Your task to perform on an android device: Open display settings Image 0: 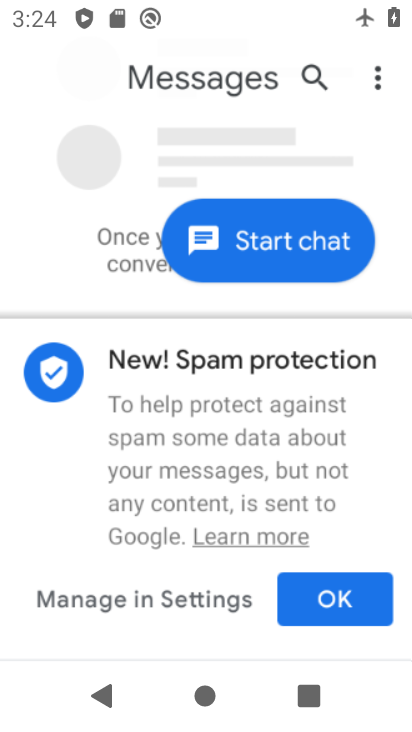
Step 0: drag from (295, 515) to (283, 143)
Your task to perform on an android device: Open display settings Image 1: 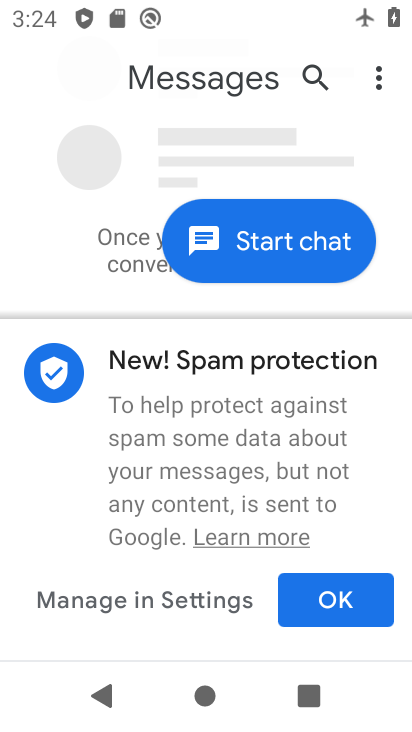
Step 1: press home button
Your task to perform on an android device: Open display settings Image 2: 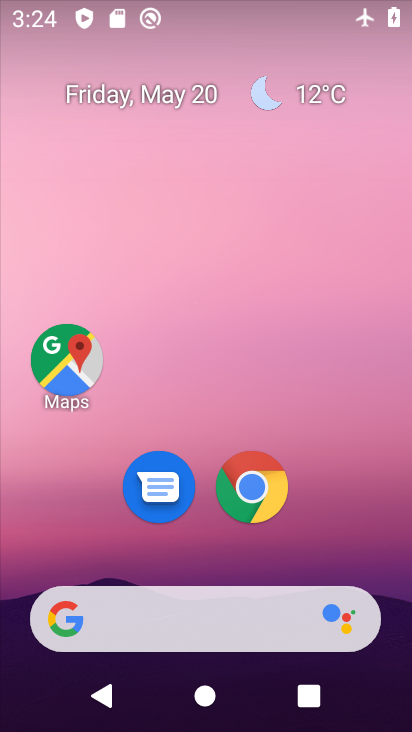
Step 2: drag from (297, 536) to (314, 186)
Your task to perform on an android device: Open display settings Image 3: 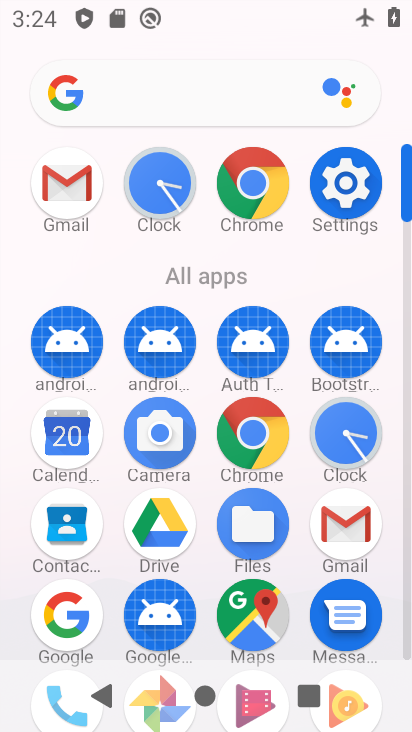
Step 3: click (349, 187)
Your task to perform on an android device: Open display settings Image 4: 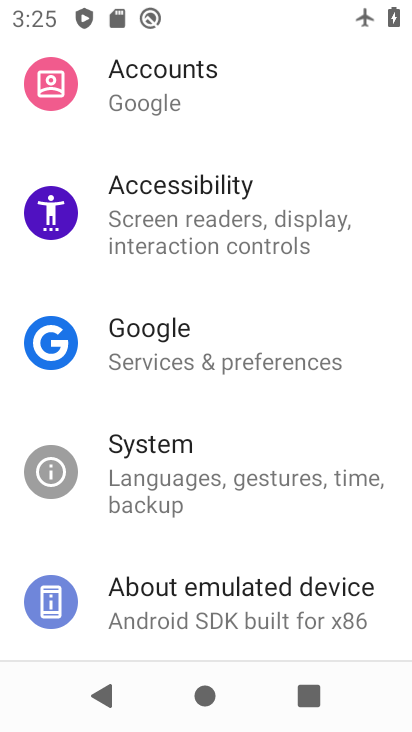
Step 4: drag from (250, 210) to (231, 456)
Your task to perform on an android device: Open display settings Image 5: 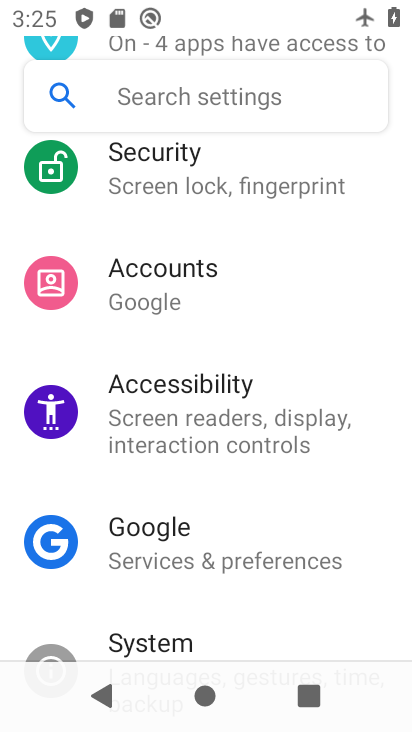
Step 5: drag from (267, 311) to (252, 534)
Your task to perform on an android device: Open display settings Image 6: 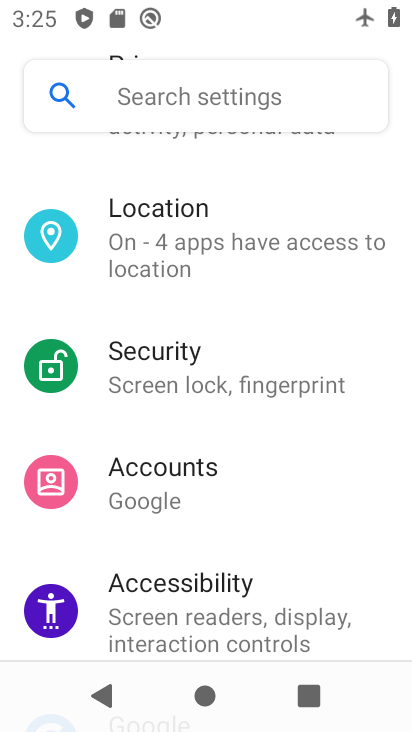
Step 6: drag from (270, 313) to (261, 498)
Your task to perform on an android device: Open display settings Image 7: 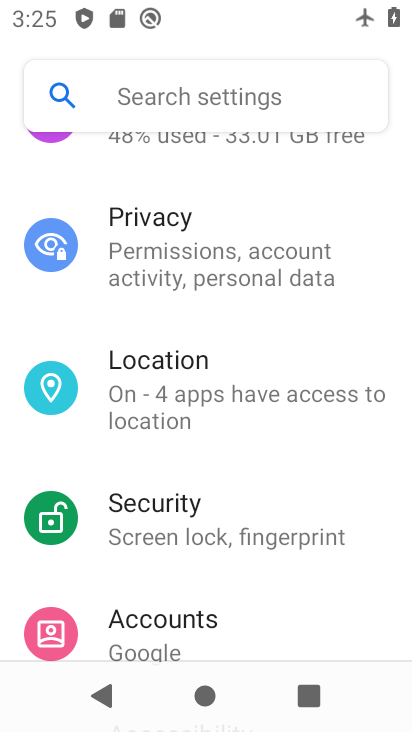
Step 7: drag from (247, 345) to (230, 522)
Your task to perform on an android device: Open display settings Image 8: 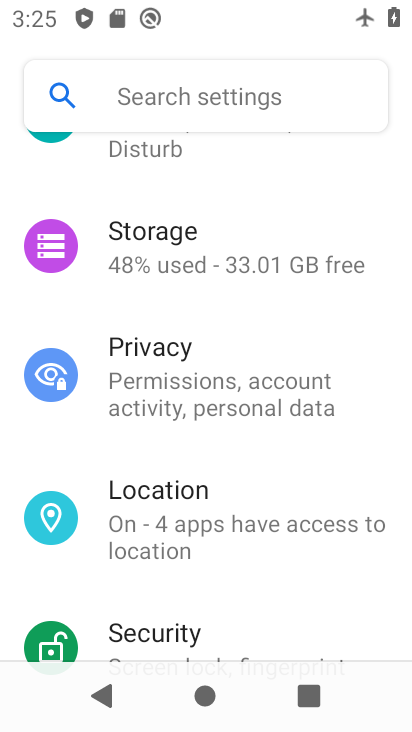
Step 8: drag from (230, 304) to (212, 508)
Your task to perform on an android device: Open display settings Image 9: 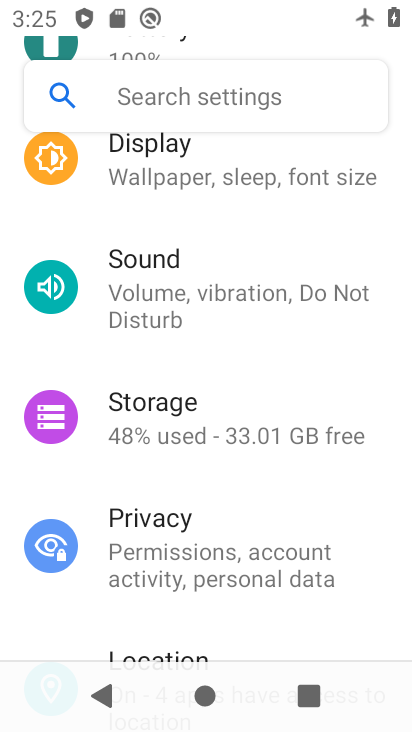
Step 9: click (183, 157)
Your task to perform on an android device: Open display settings Image 10: 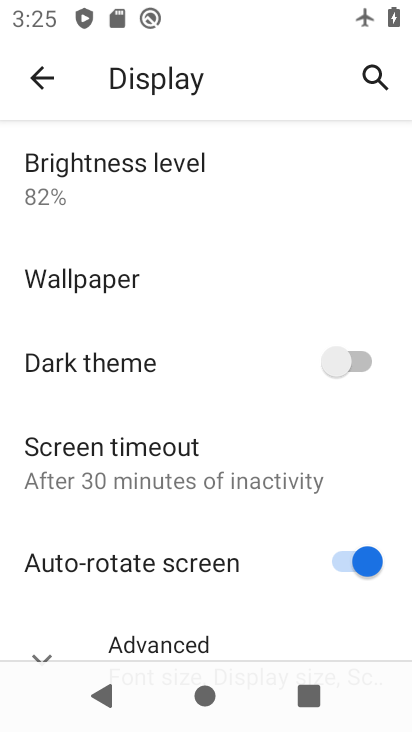
Step 10: task complete